Your task to perform on an android device: turn off picture-in-picture Image 0: 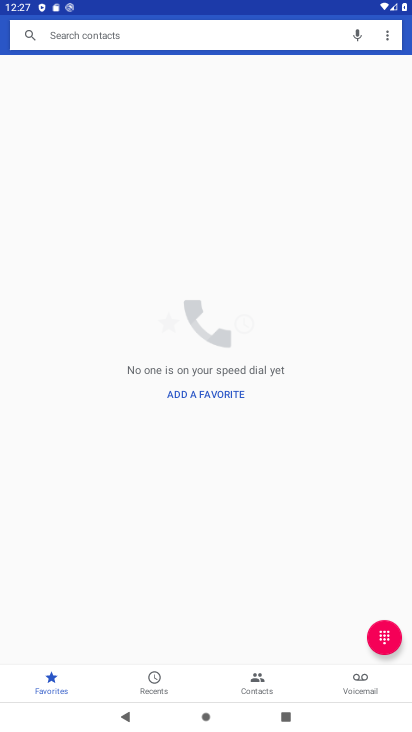
Step 0: press home button
Your task to perform on an android device: turn off picture-in-picture Image 1: 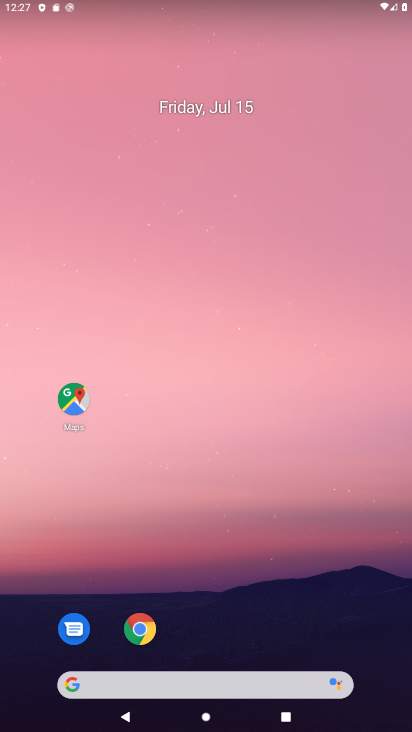
Step 1: click (137, 628)
Your task to perform on an android device: turn off picture-in-picture Image 2: 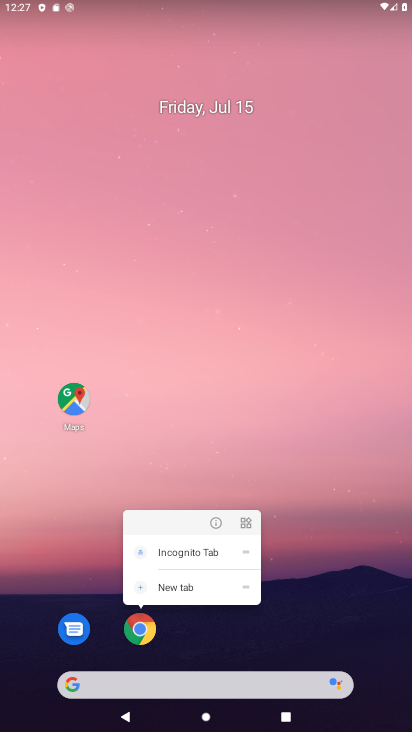
Step 2: click (212, 521)
Your task to perform on an android device: turn off picture-in-picture Image 3: 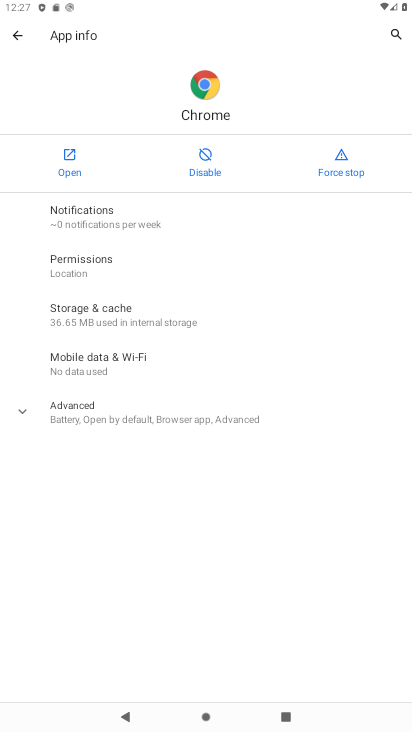
Step 3: click (97, 413)
Your task to perform on an android device: turn off picture-in-picture Image 4: 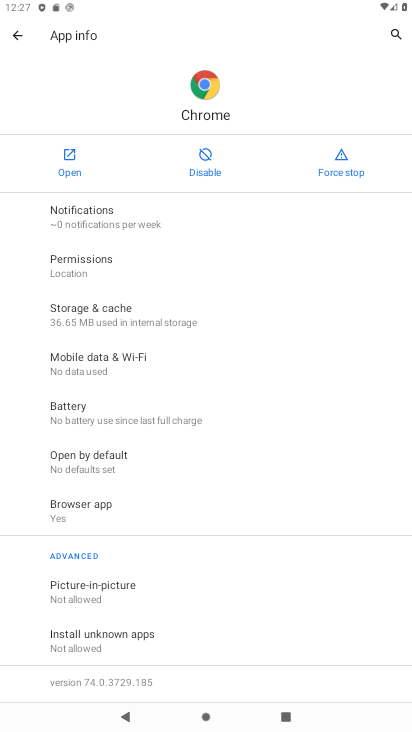
Step 4: click (120, 588)
Your task to perform on an android device: turn off picture-in-picture Image 5: 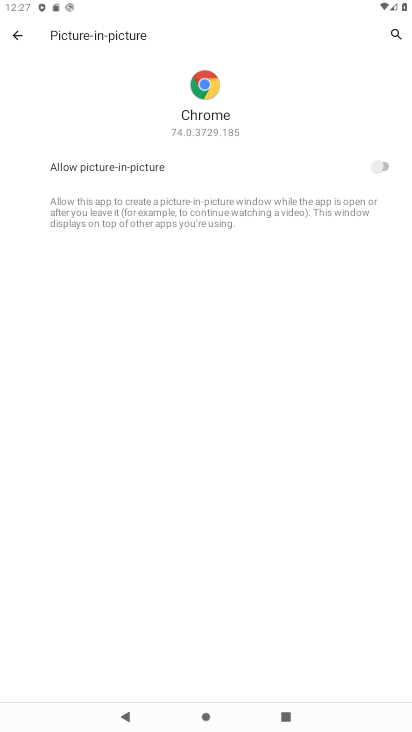
Step 5: task complete